Your task to perform on an android device: open chrome and create a bookmark for the current page Image 0: 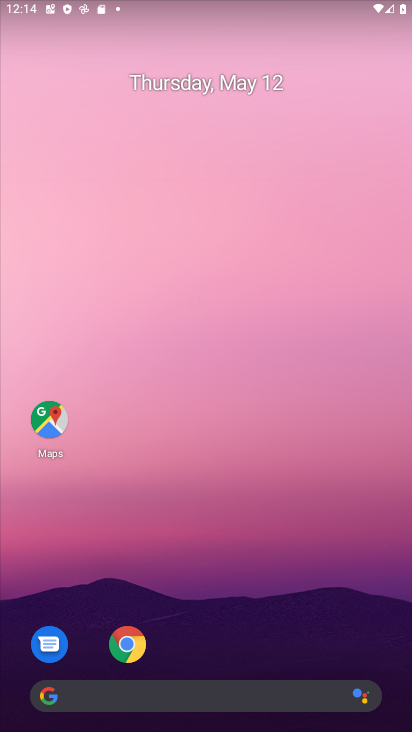
Step 0: click (144, 637)
Your task to perform on an android device: open chrome and create a bookmark for the current page Image 1: 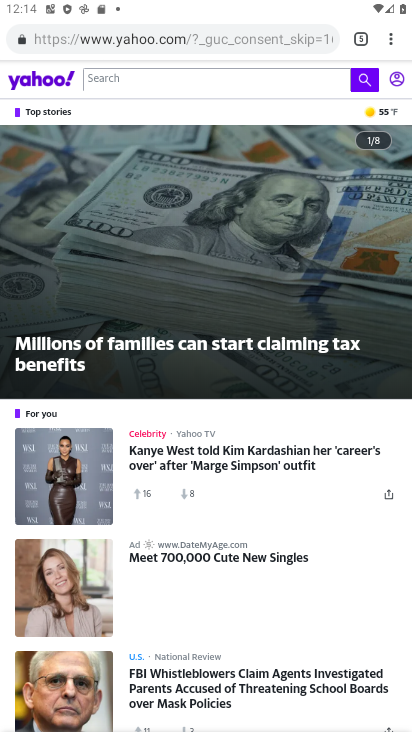
Step 1: click (294, 30)
Your task to perform on an android device: open chrome and create a bookmark for the current page Image 2: 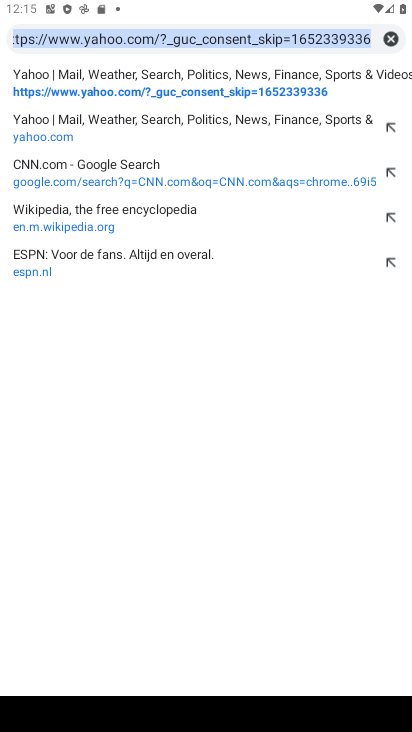
Step 2: click (207, 167)
Your task to perform on an android device: open chrome and create a bookmark for the current page Image 3: 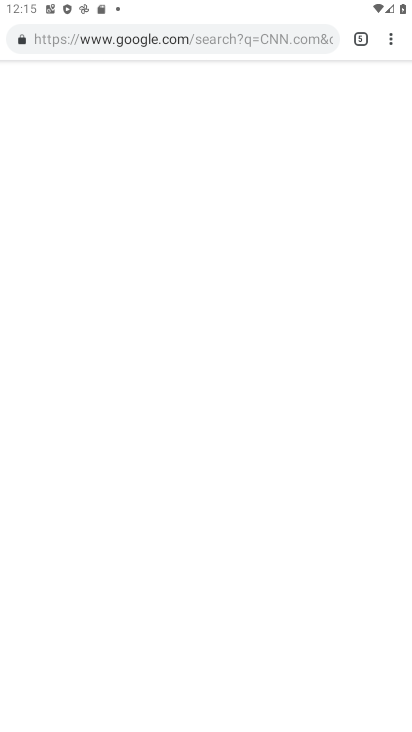
Step 3: click (399, 43)
Your task to perform on an android device: open chrome and create a bookmark for the current page Image 4: 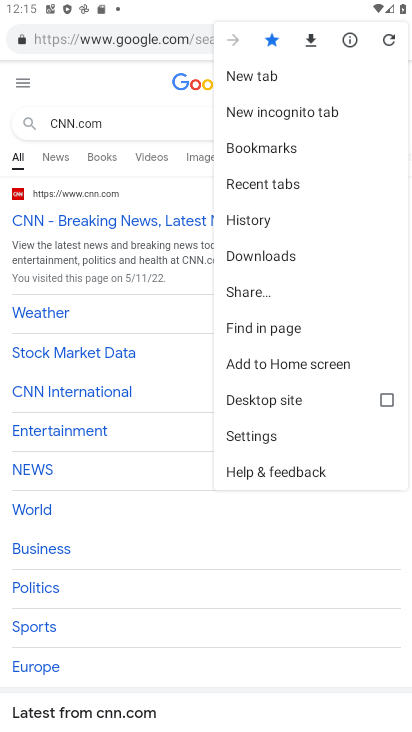
Step 4: task complete